Your task to perform on an android device: Play the last video I watched on Youtube Image 0: 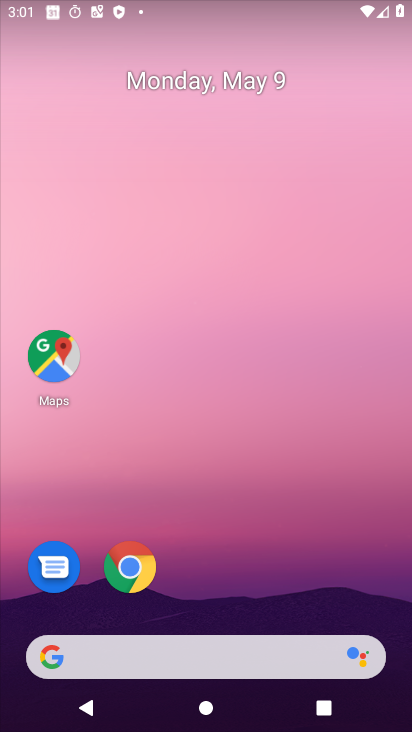
Step 0: drag from (236, 607) to (230, 29)
Your task to perform on an android device: Play the last video I watched on Youtube Image 1: 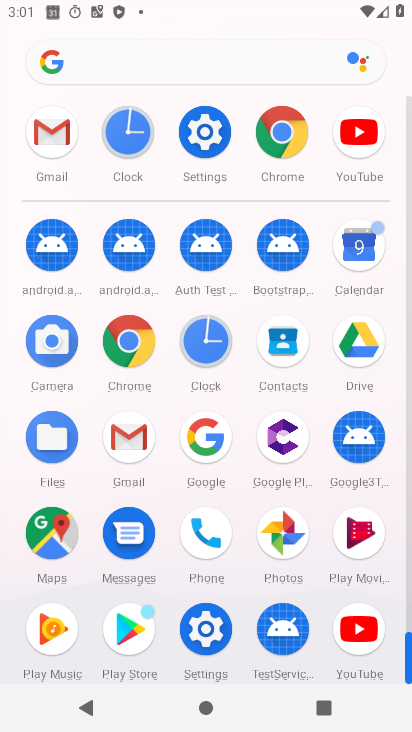
Step 1: click (358, 616)
Your task to perform on an android device: Play the last video I watched on Youtube Image 2: 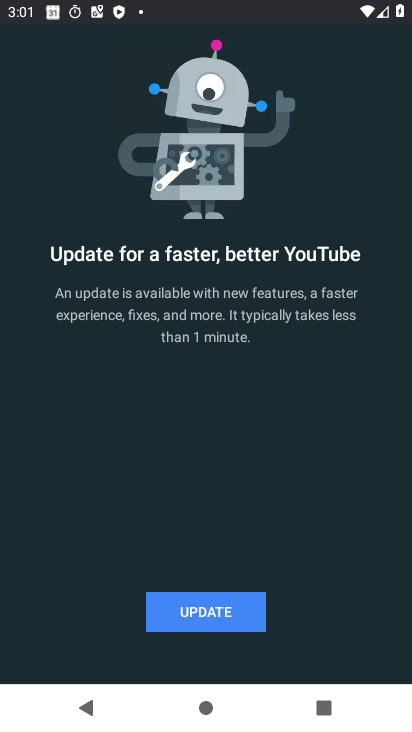
Step 2: click (237, 626)
Your task to perform on an android device: Play the last video I watched on Youtube Image 3: 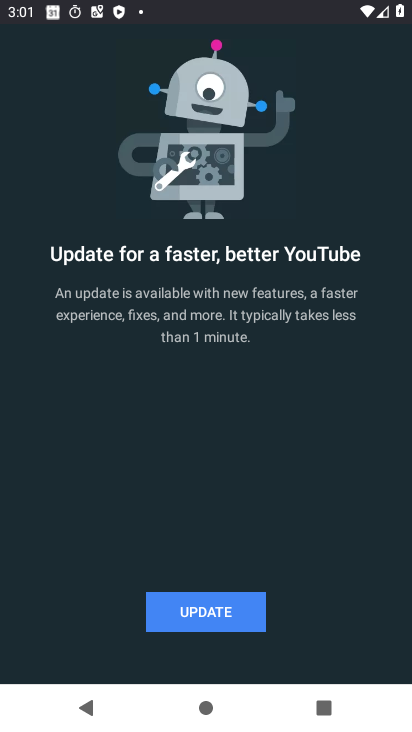
Step 3: click (230, 608)
Your task to perform on an android device: Play the last video I watched on Youtube Image 4: 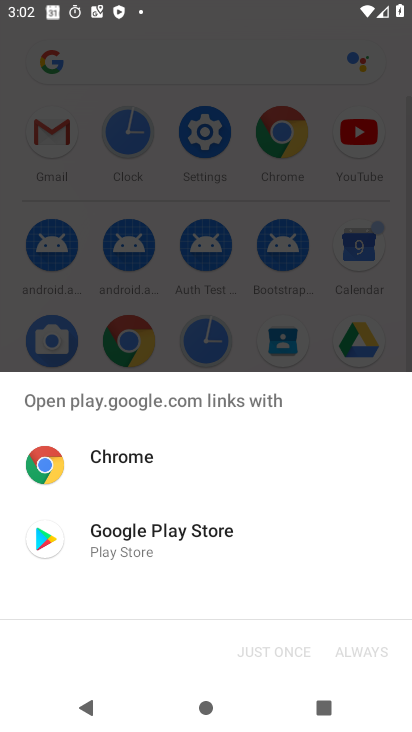
Step 4: click (151, 549)
Your task to perform on an android device: Play the last video I watched on Youtube Image 5: 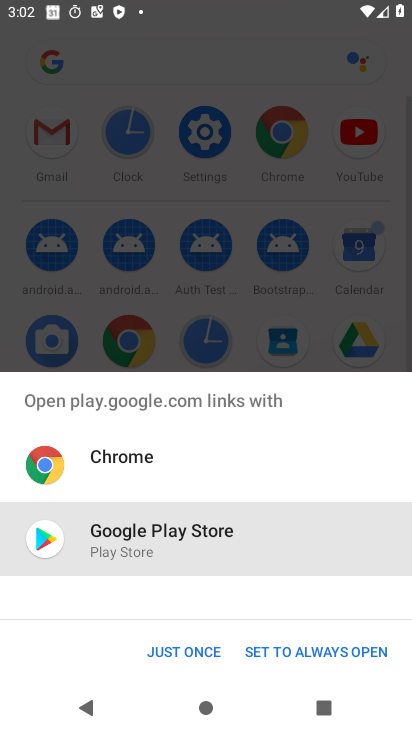
Step 5: click (186, 654)
Your task to perform on an android device: Play the last video I watched on Youtube Image 6: 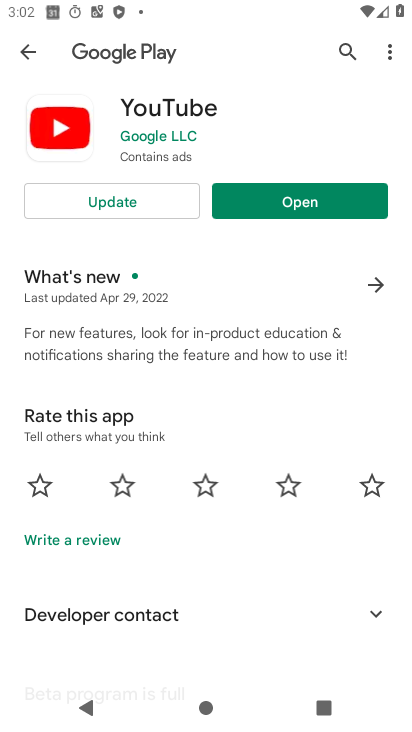
Step 6: click (144, 194)
Your task to perform on an android device: Play the last video I watched on Youtube Image 7: 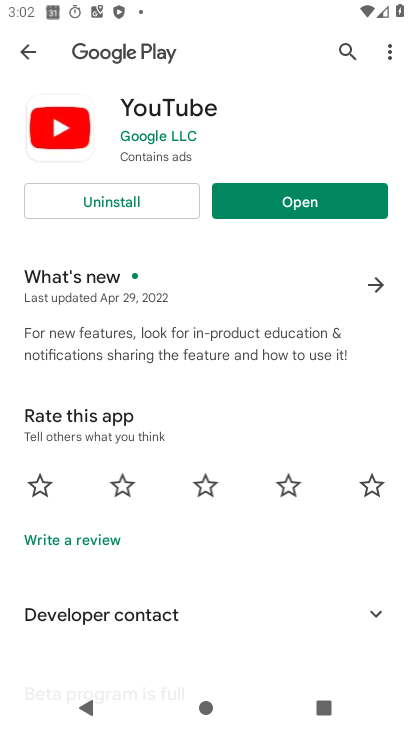
Step 7: click (295, 210)
Your task to perform on an android device: Play the last video I watched on Youtube Image 8: 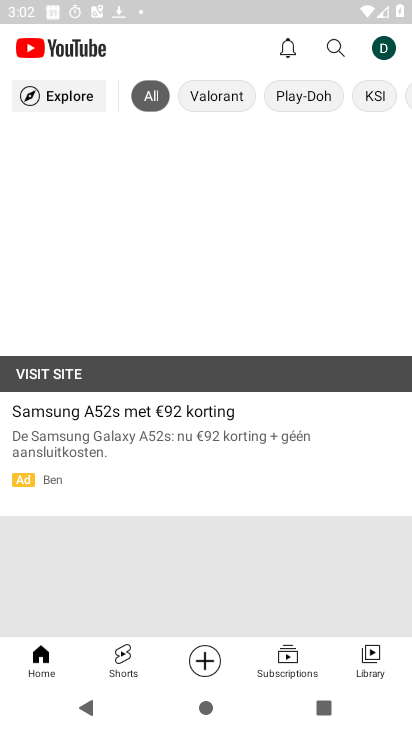
Step 8: click (366, 650)
Your task to perform on an android device: Play the last video I watched on Youtube Image 9: 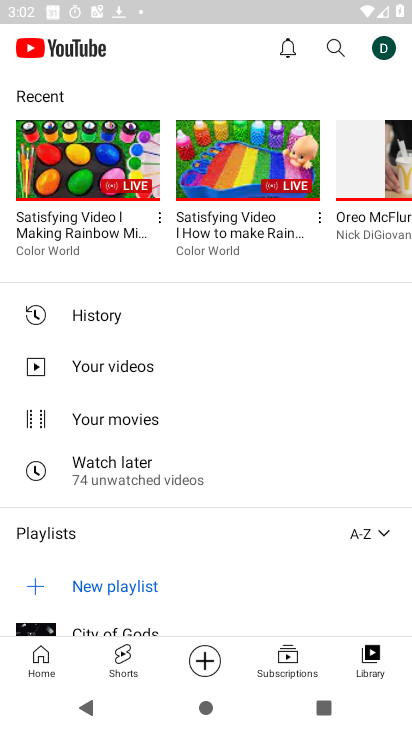
Step 9: click (100, 162)
Your task to perform on an android device: Play the last video I watched on Youtube Image 10: 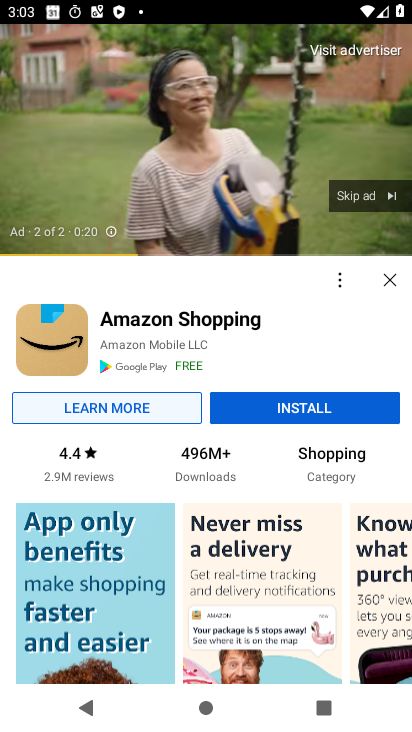
Step 10: click (372, 193)
Your task to perform on an android device: Play the last video I watched on Youtube Image 11: 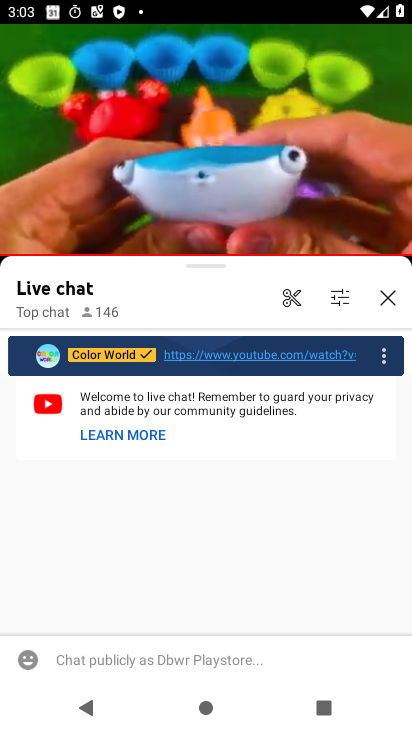
Step 11: task complete